Your task to perform on an android device: turn notification dots on Image 0: 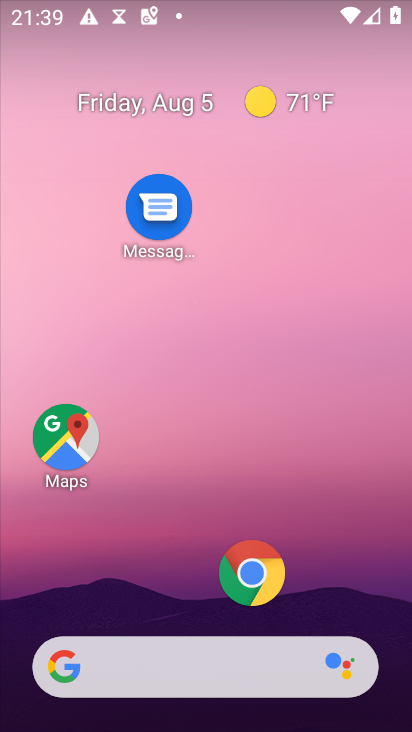
Step 0: press home button
Your task to perform on an android device: turn notification dots on Image 1: 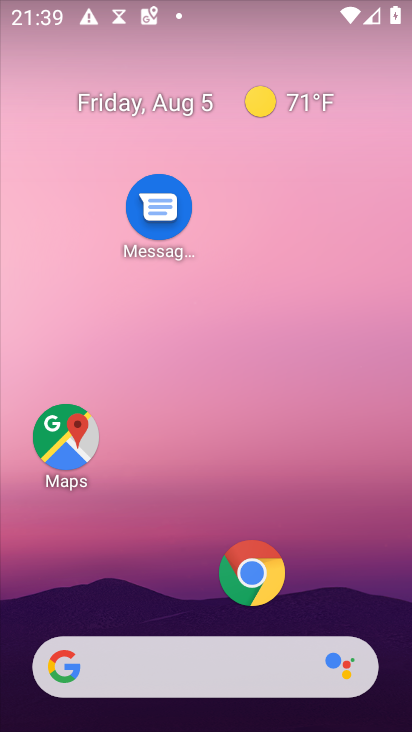
Step 1: drag from (197, 612) to (229, 8)
Your task to perform on an android device: turn notification dots on Image 2: 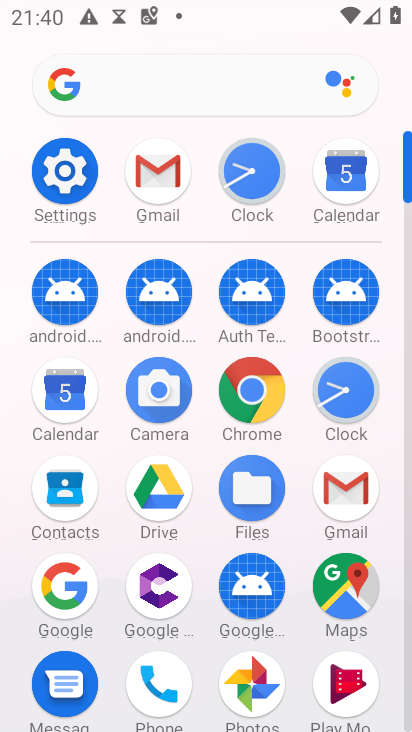
Step 2: click (66, 165)
Your task to perform on an android device: turn notification dots on Image 3: 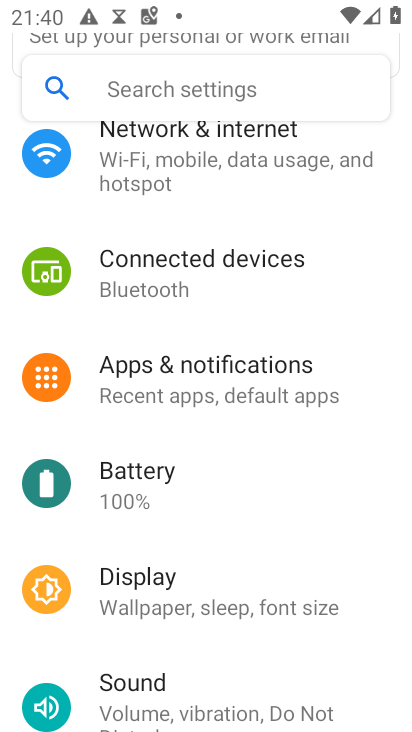
Step 3: click (191, 385)
Your task to perform on an android device: turn notification dots on Image 4: 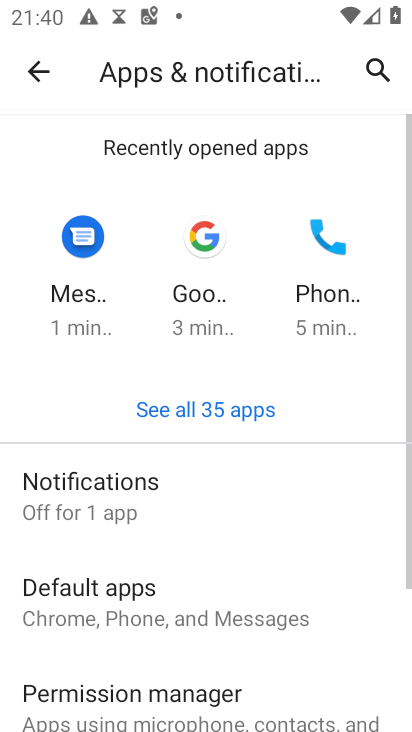
Step 4: click (181, 495)
Your task to perform on an android device: turn notification dots on Image 5: 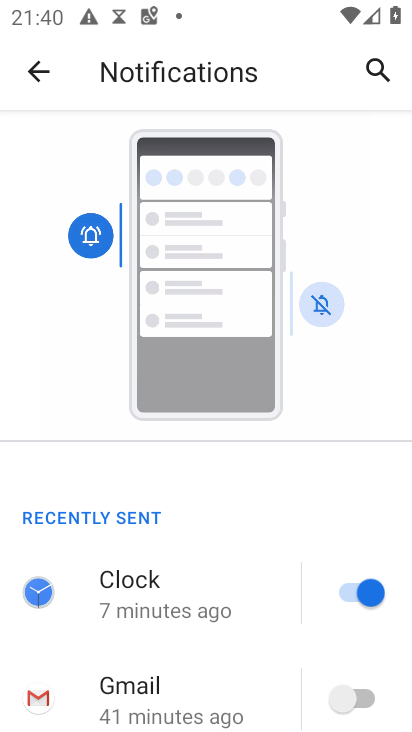
Step 5: drag from (239, 673) to (233, 261)
Your task to perform on an android device: turn notification dots on Image 6: 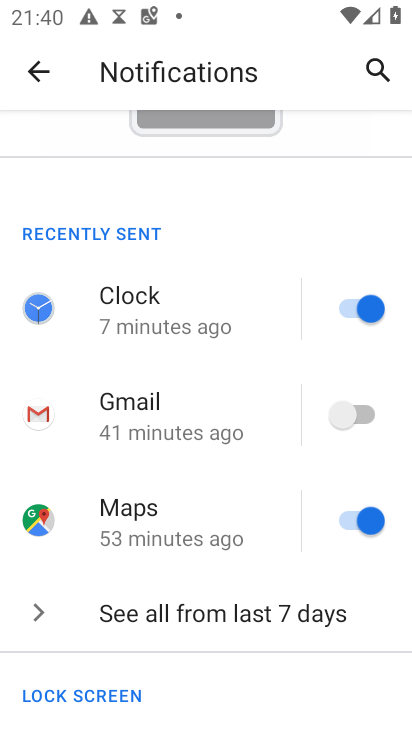
Step 6: drag from (235, 672) to (267, 195)
Your task to perform on an android device: turn notification dots on Image 7: 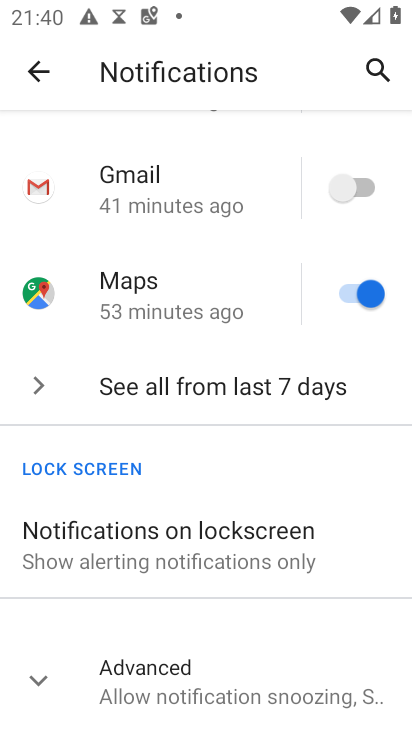
Step 7: click (80, 675)
Your task to perform on an android device: turn notification dots on Image 8: 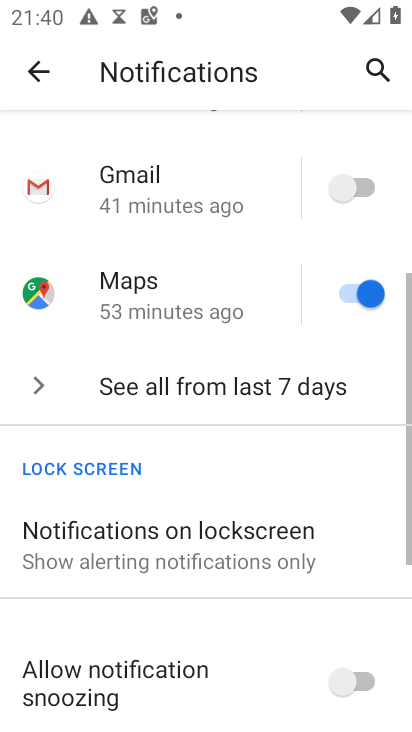
Step 8: task complete